Your task to perform on an android device: Is it going to rain tomorrow? Image 0: 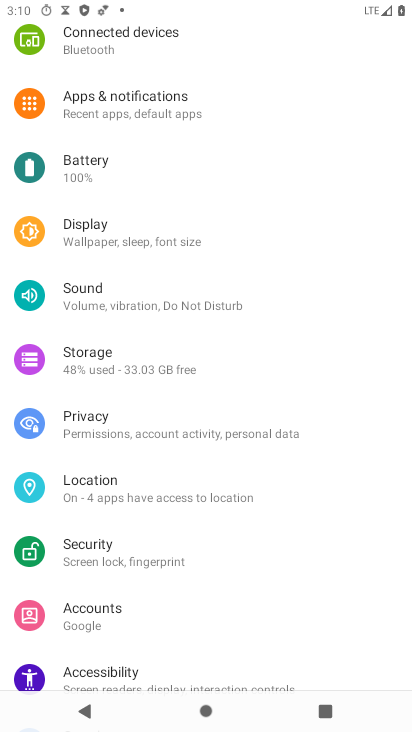
Step 0: press home button
Your task to perform on an android device: Is it going to rain tomorrow? Image 1: 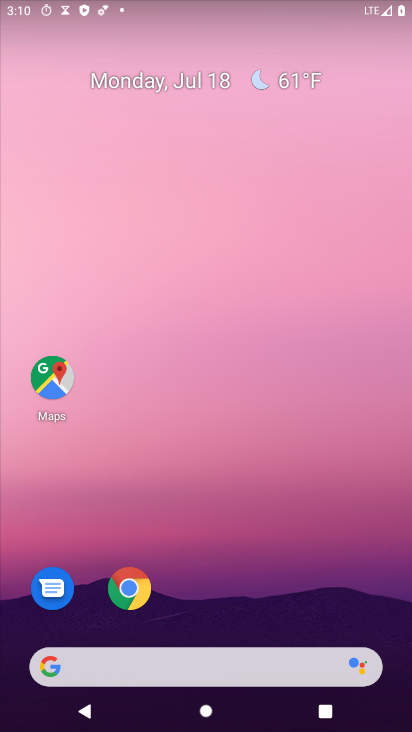
Step 1: drag from (277, 551) to (272, 4)
Your task to perform on an android device: Is it going to rain tomorrow? Image 2: 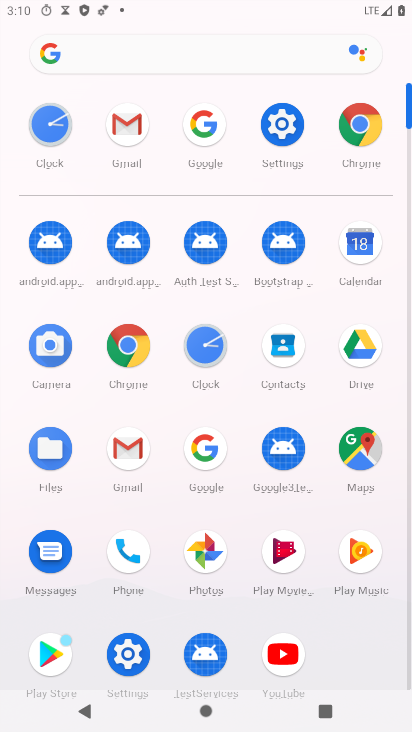
Step 2: click (196, 444)
Your task to perform on an android device: Is it going to rain tomorrow? Image 3: 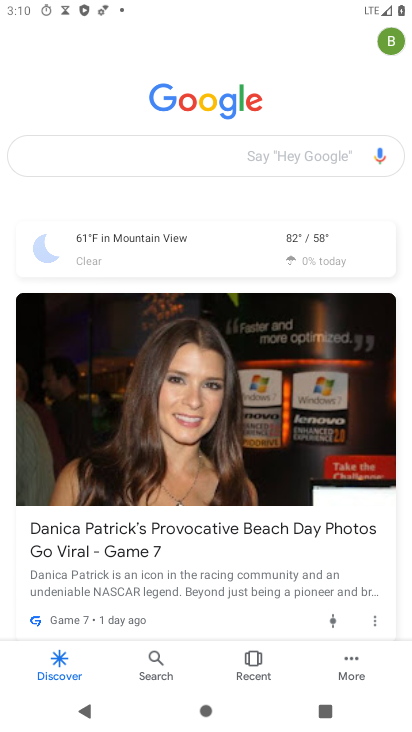
Step 3: click (264, 260)
Your task to perform on an android device: Is it going to rain tomorrow? Image 4: 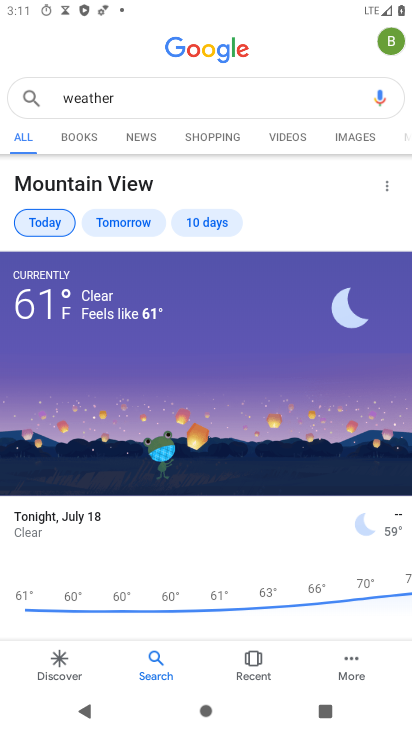
Step 4: task complete